Your task to perform on an android device: toggle data saver in the chrome app Image 0: 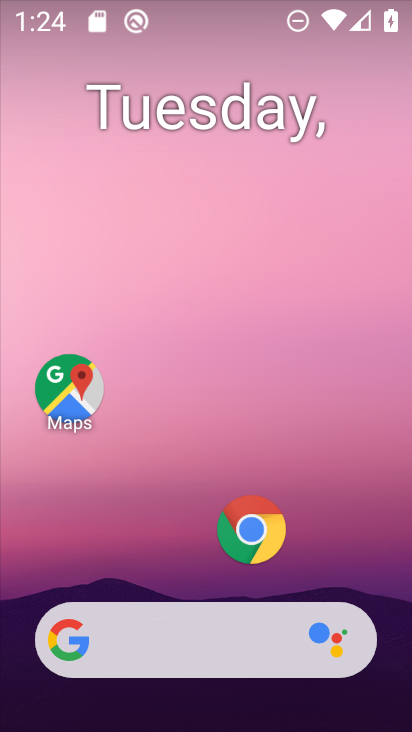
Step 0: drag from (177, 672) to (317, 33)
Your task to perform on an android device: toggle data saver in the chrome app Image 1: 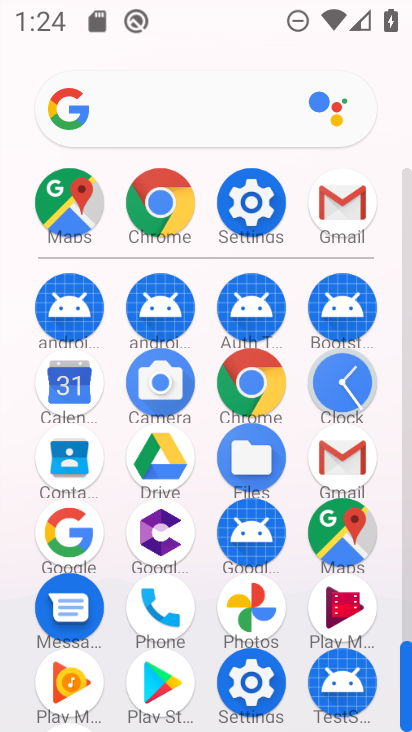
Step 1: click (177, 221)
Your task to perform on an android device: toggle data saver in the chrome app Image 2: 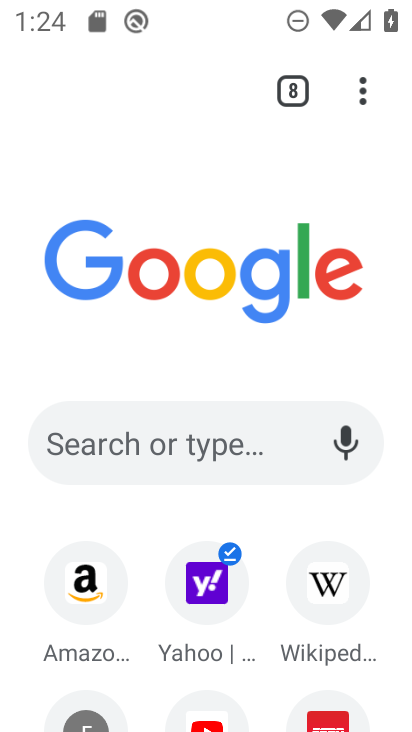
Step 2: click (365, 97)
Your task to perform on an android device: toggle data saver in the chrome app Image 3: 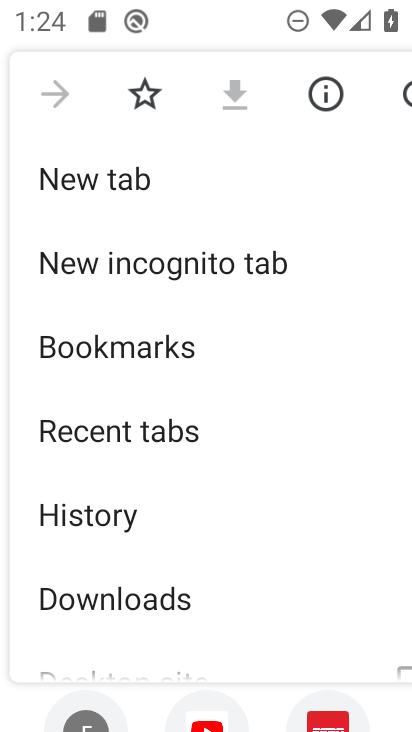
Step 3: drag from (138, 620) to (214, 347)
Your task to perform on an android device: toggle data saver in the chrome app Image 4: 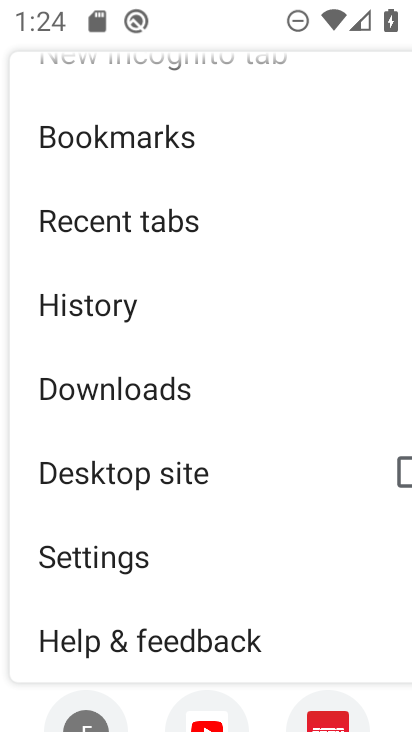
Step 4: click (119, 550)
Your task to perform on an android device: toggle data saver in the chrome app Image 5: 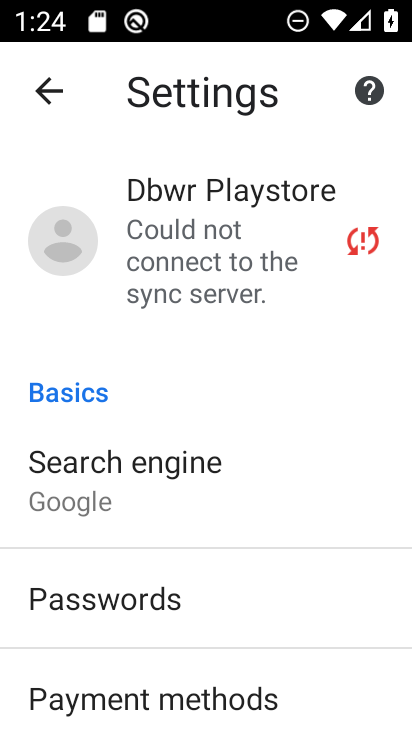
Step 5: drag from (130, 640) to (176, 390)
Your task to perform on an android device: toggle data saver in the chrome app Image 6: 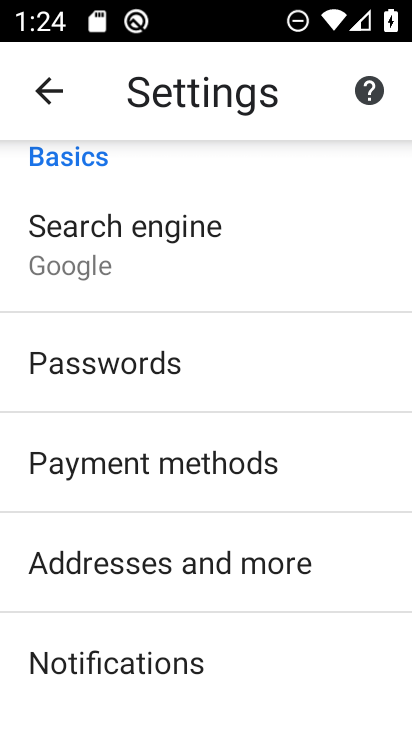
Step 6: drag from (149, 590) to (188, 296)
Your task to perform on an android device: toggle data saver in the chrome app Image 7: 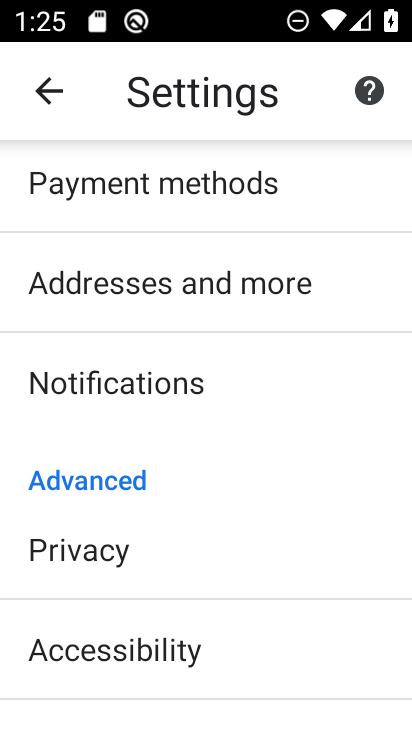
Step 7: drag from (148, 499) to (167, 365)
Your task to perform on an android device: toggle data saver in the chrome app Image 8: 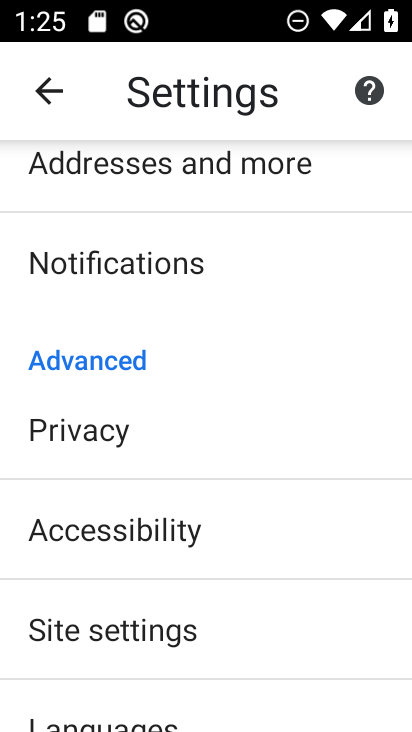
Step 8: drag from (118, 610) to (204, 409)
Your task to perform on an android device: toggle data saver in the chrome app Image 9: 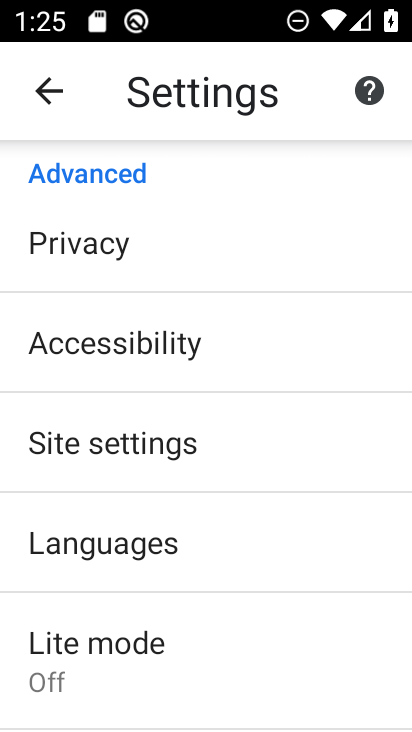
Step 9: drag from (137, 608) to (183, 467)
Your task to perform on an android device: toggle data saver in the chrome app Image 10: 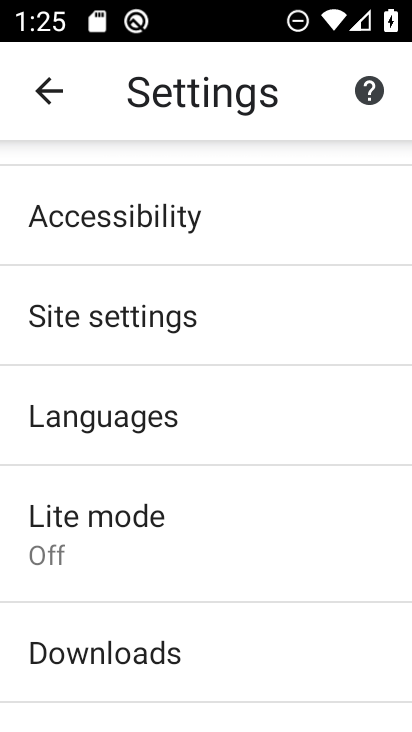
Step 10: click (117, 521)
Your task to perform on an android device: toggle data saver in the chrome app Image 11: 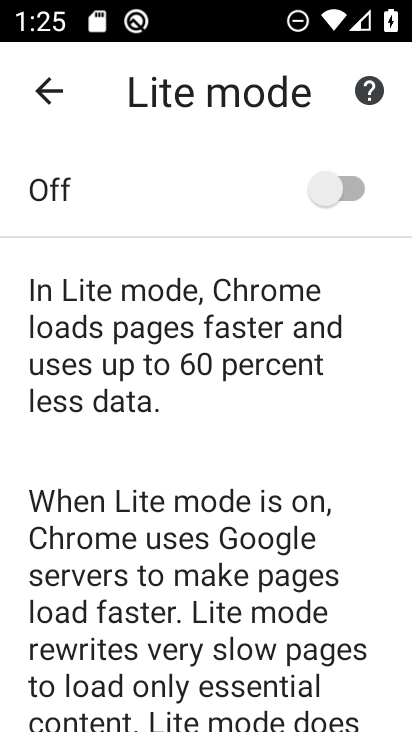
Step 11: task complete